Your task to perform on an android device: open app "Walmart Shopping & Grocery" (install if not already installed), go to login, and select forgot password Image 0: 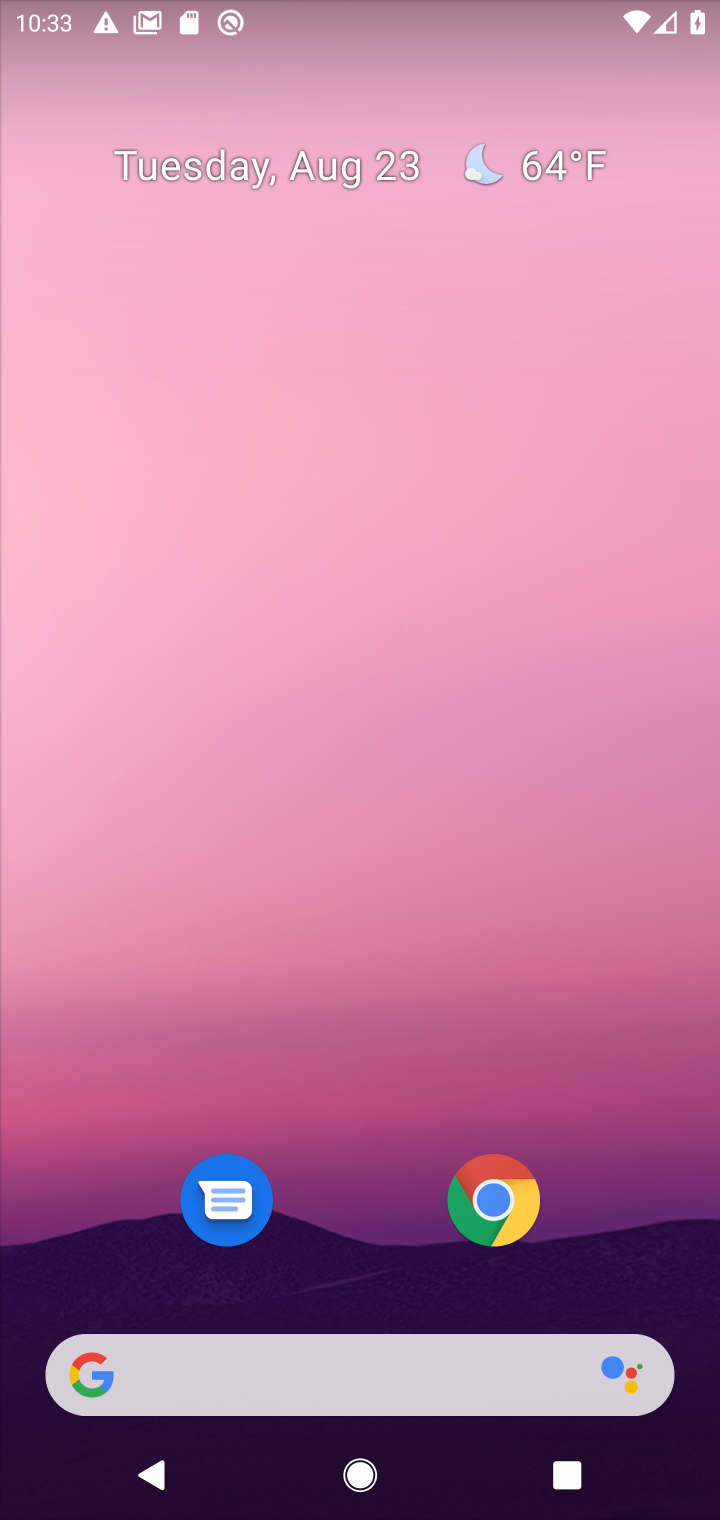
Step 0: drag from (380, 1291) to (154, 103)
Your task to perform on an android device: open app "Walmart Shopping & Grocery" (install if not already installed), go to login, and select forgot password Image 1: 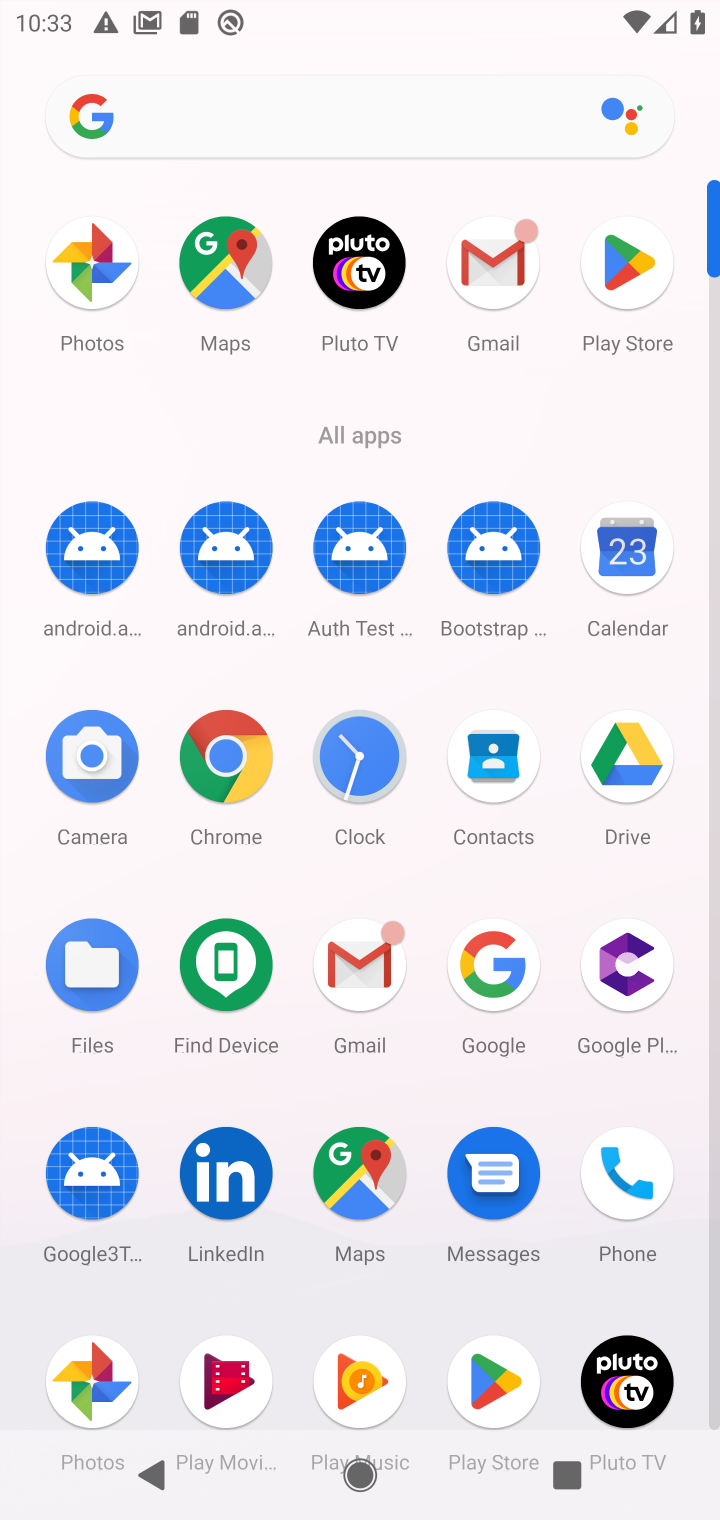
Step 1: click (482, 1404)
Your task to perform on an android device: open app "Walmart Shopping & Grocery" (install if not already installed), go to login, and select forgot password Image 2: 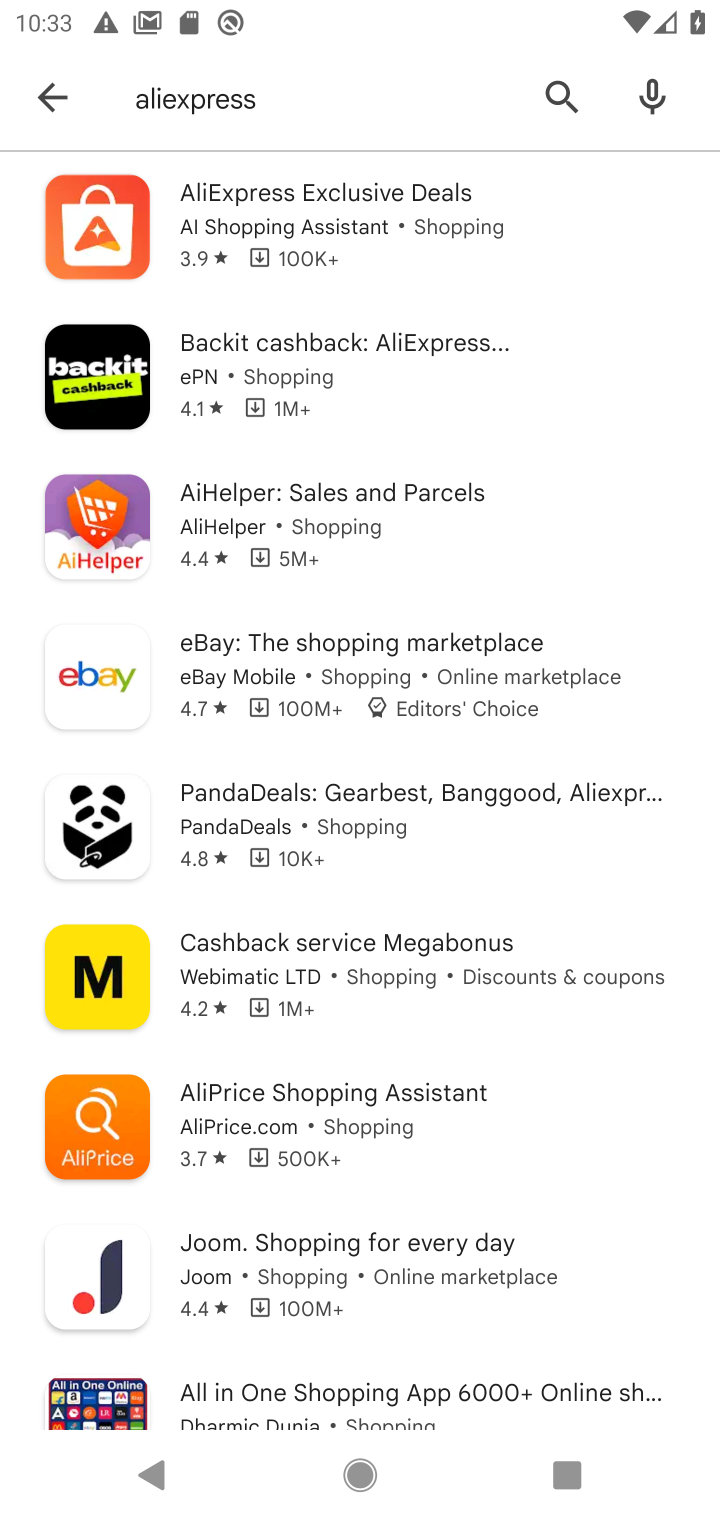
Step 2: click (63, 102)
Your task to perform on an android device: open app "Walmart Shopping & Grocery" (install if not already installed), go to login, and select forgot password Image 3: 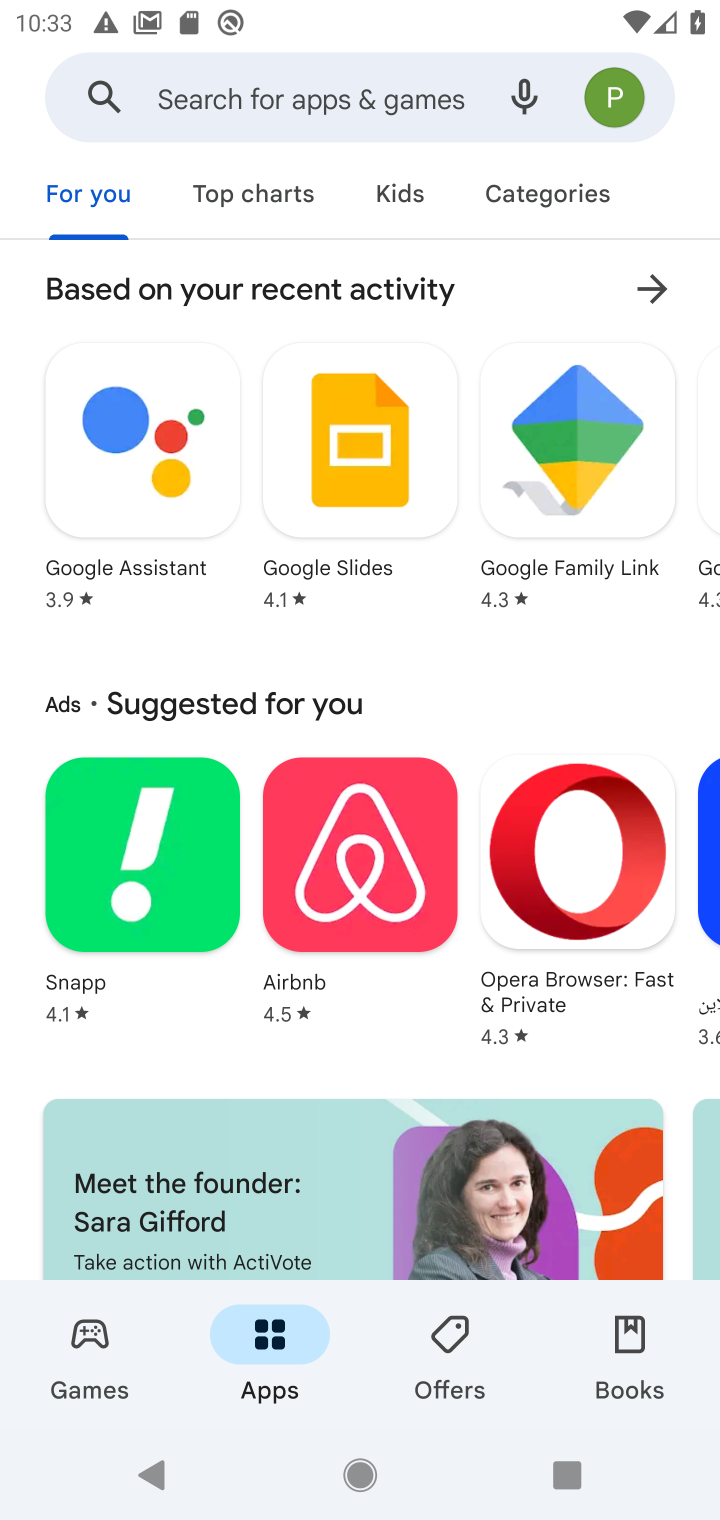
Step 3: click (179, 93)
Your task to perform on an android device: open app "Walmart Shopping & Grocery" (install if not already installed), go to login, and select forgot password Image 4: 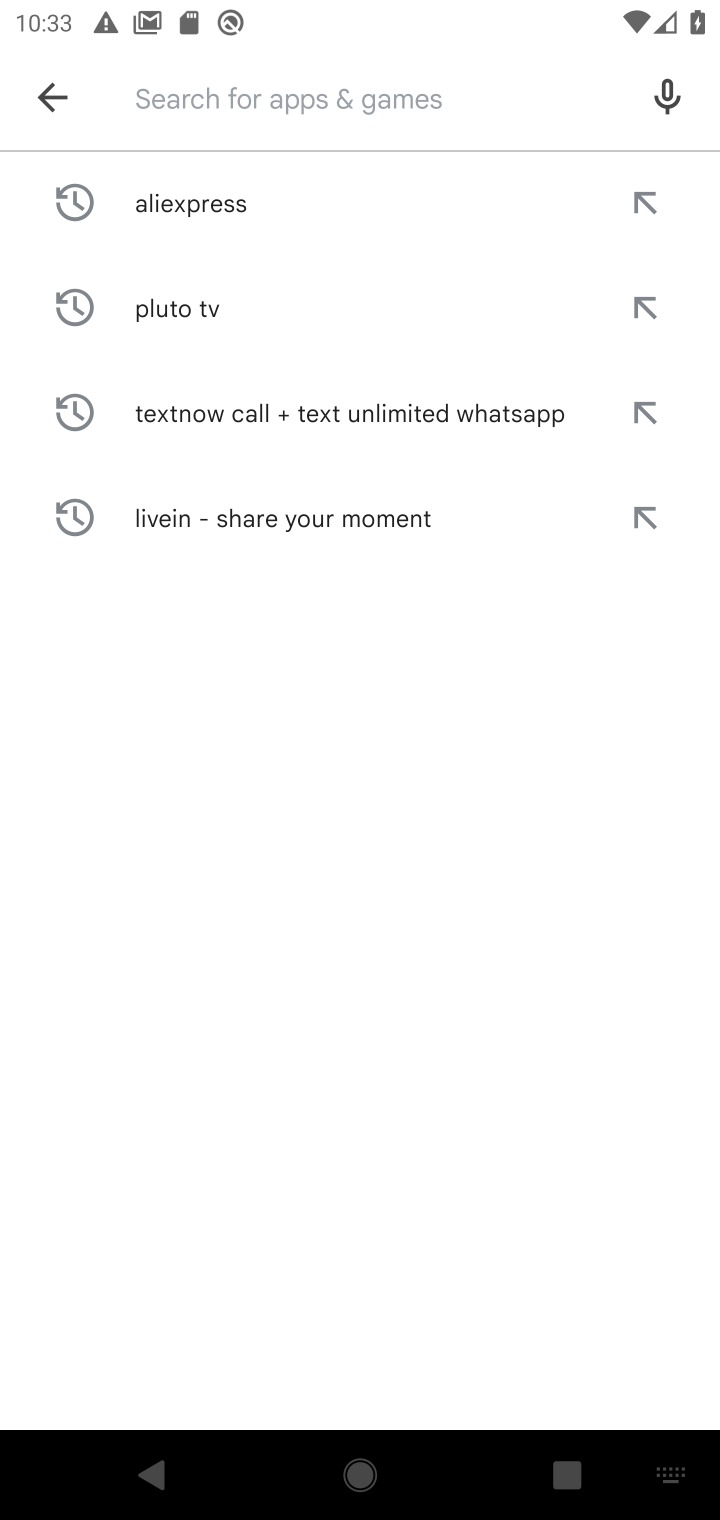
Step 4: click (262, 1483)
Your task to perform on an android device: open app "Walmart Shopping & Grocery" (install if not already installed), go to login, and select forgot password Image 5: 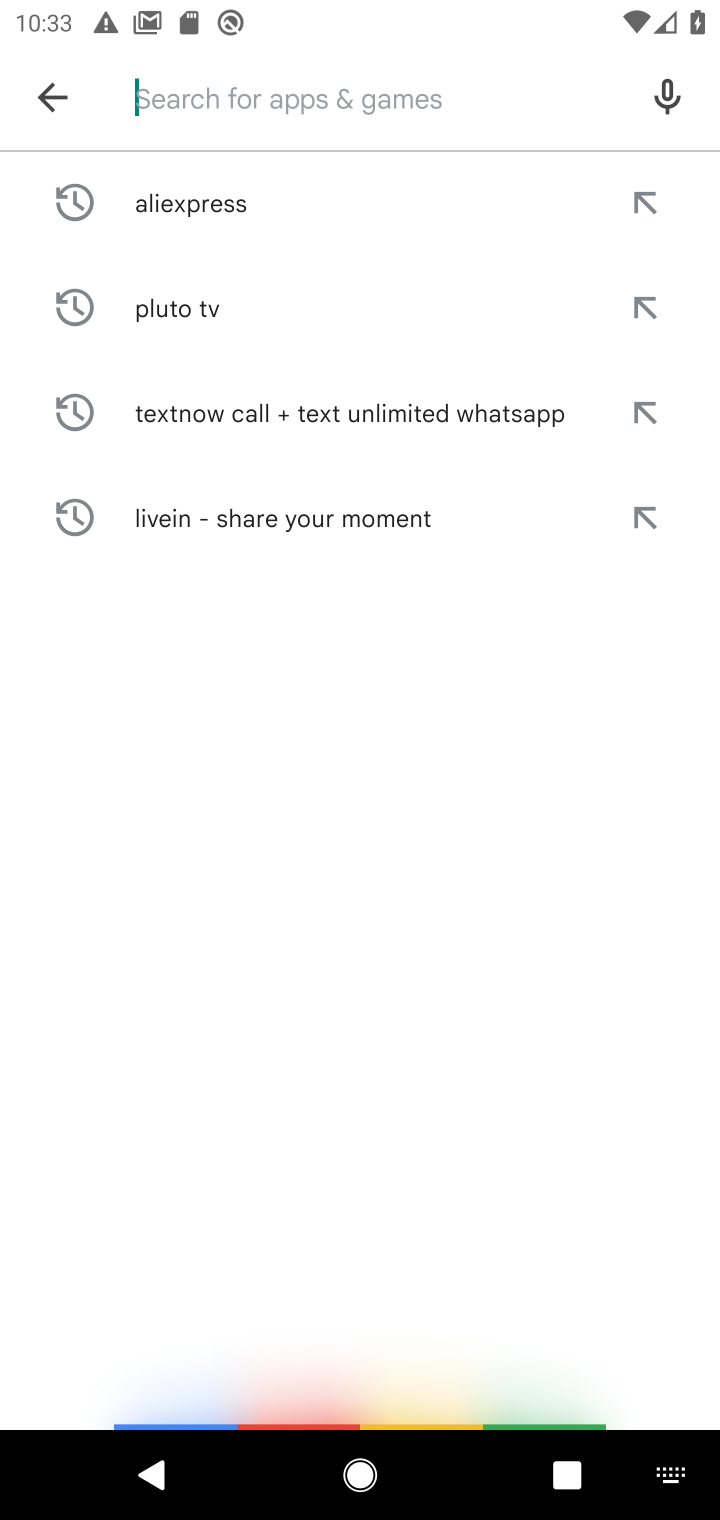
Step 5: type "Walmart Shopping & Grocery"
Your task to perform on an android device: open app "Walmart Shopping & Grocery" (install if not already installed), go to login, and select forgot password Image 6: 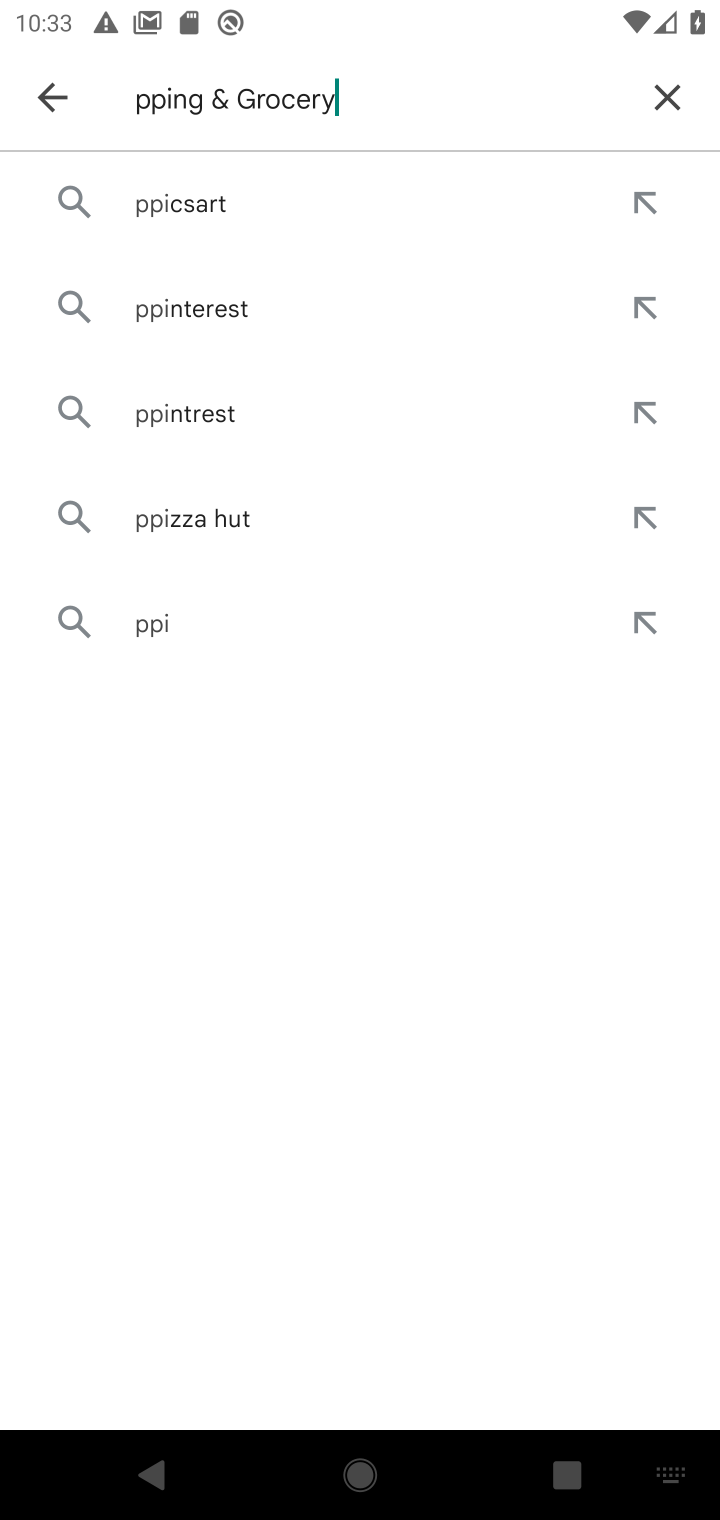
Step 6: drag from (262, 1483) to (667, 658)
Your task to perform on an android device: open app "Walmart Shopping & Grocery" (install if not already installed), go to login, and select forgot password Image 7: 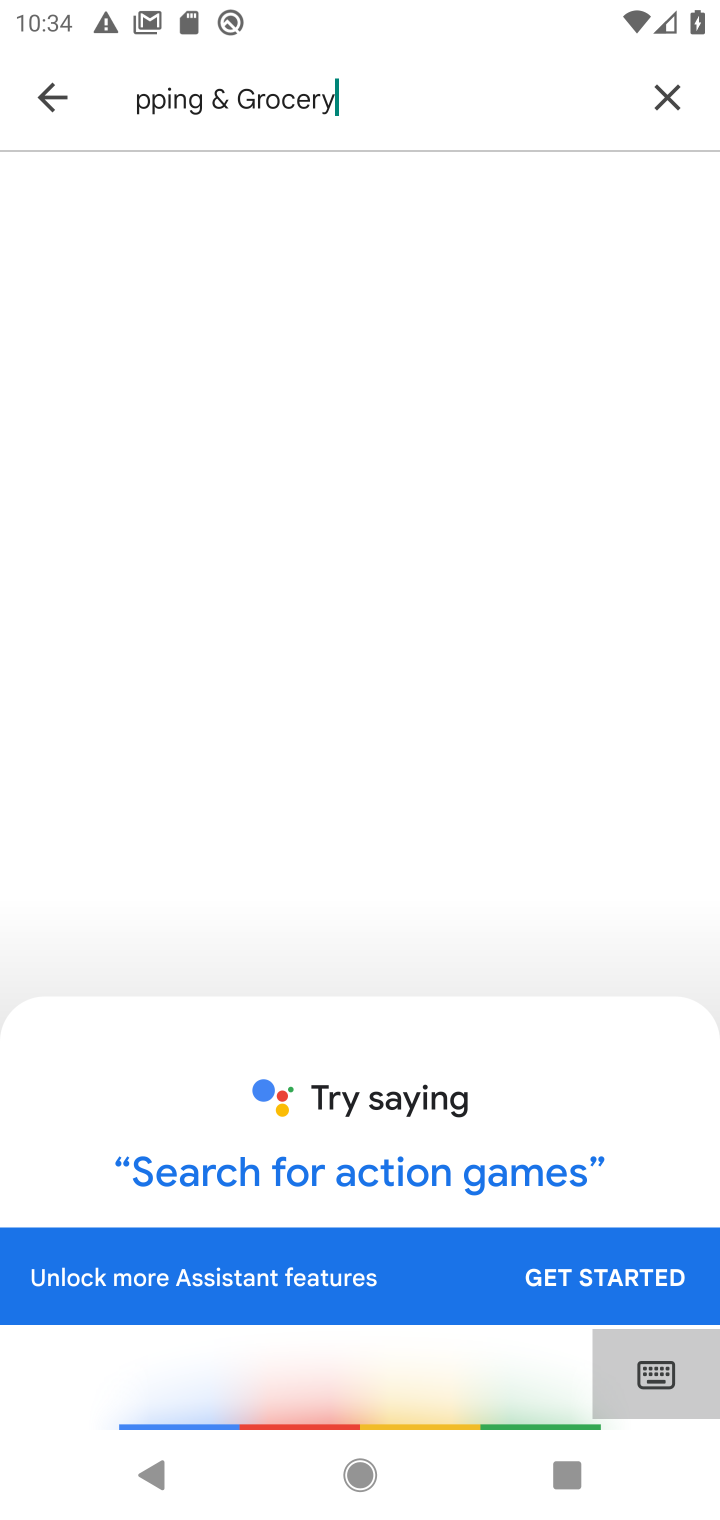
Step 7: click (632, 583)
Your task to perform on an android device: open app "Walmart Shopping & Grocery" (install if not already installed), go to login, and select forgot password Image 8: 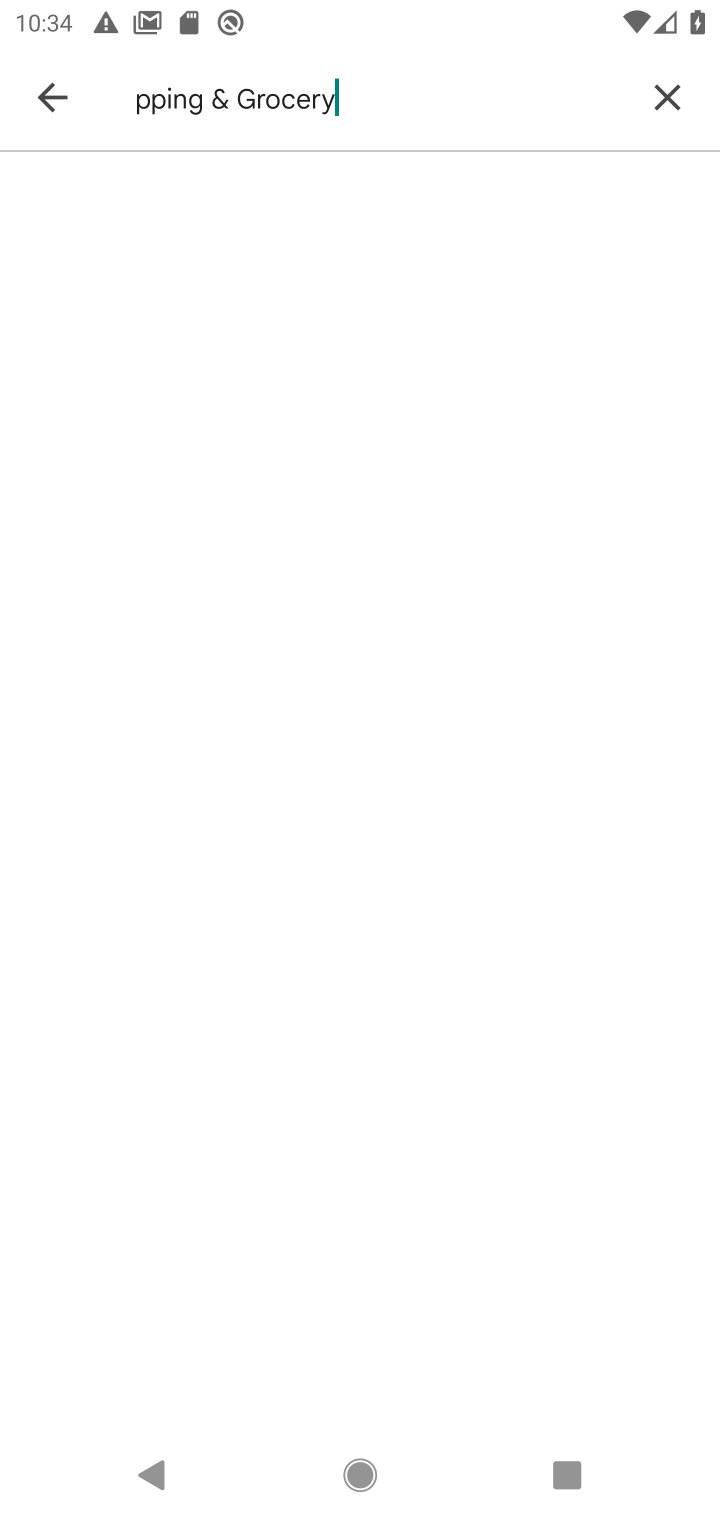
Step 8: click (671, 82)
Your task to perform on an android device: open app "Walmart Shopping & Grocery" (install if not already installed), go to login, and select forgot password Image 9: 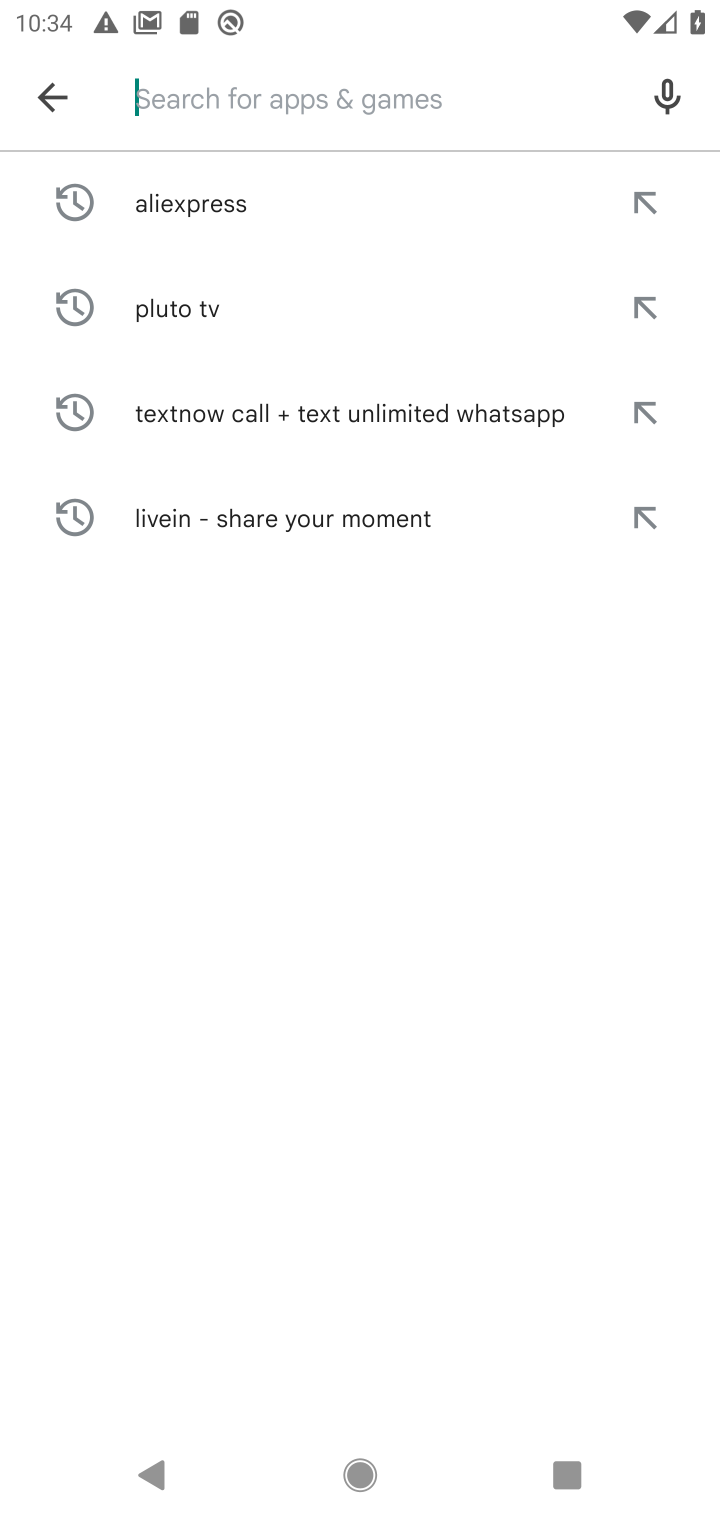
Step 9: drag from (140, 1501) to (499, 1411)
Your task to perform on an android device: open app "Walmart Shopping & Grocery" (install if not already installed), go to login, and select forgot password Image 10: 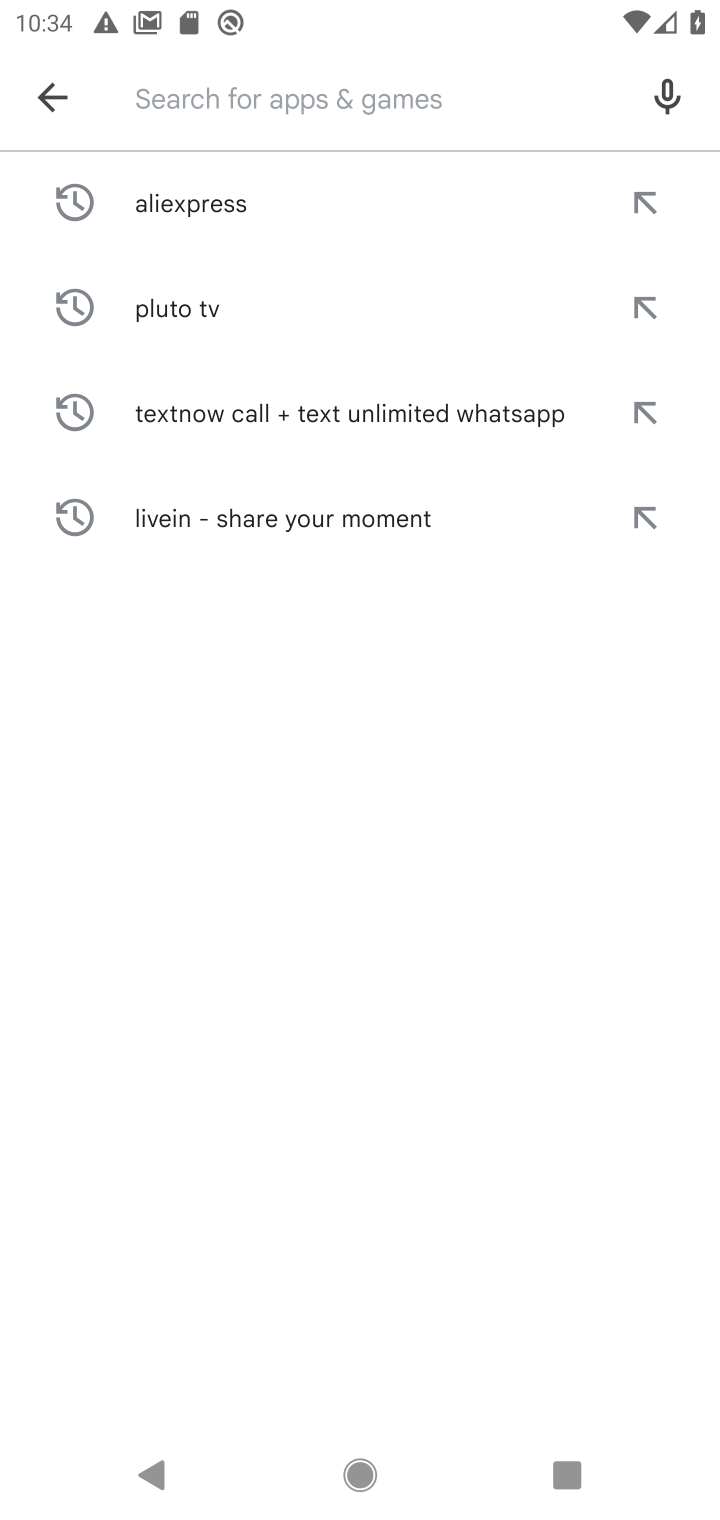
Step 10: type "Walmart Shopping & Grocery"
Your task to perform on an android device: open app "Walmart Shopping & Grocery" (install if not already installed), go to login, and select forgot password Image 11: 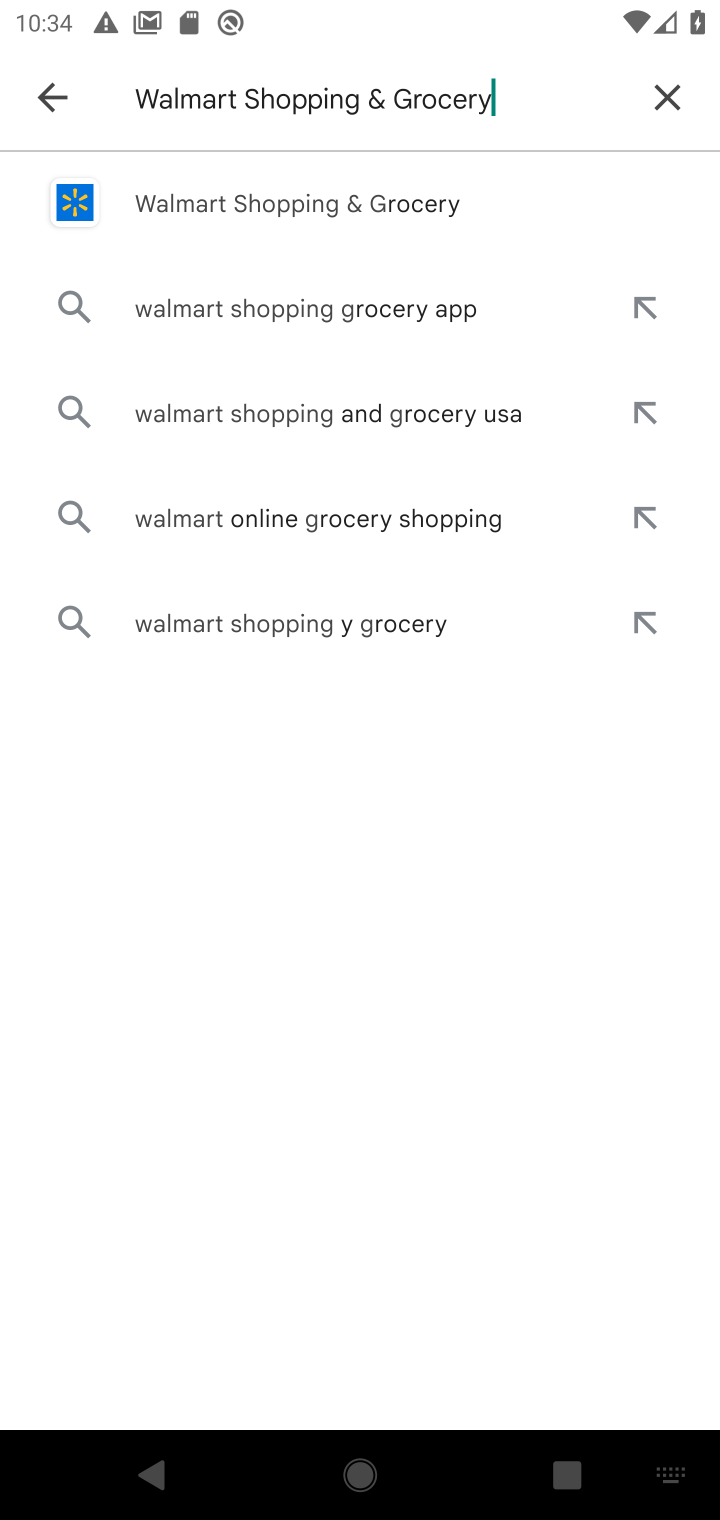
Step 11: drag from (499, 1411) to (717, 295)
Your task to perform on an android device: open app "Walmart Shopping & Grocery" (install if not already installed), go to login, and select forgot password Image 12: 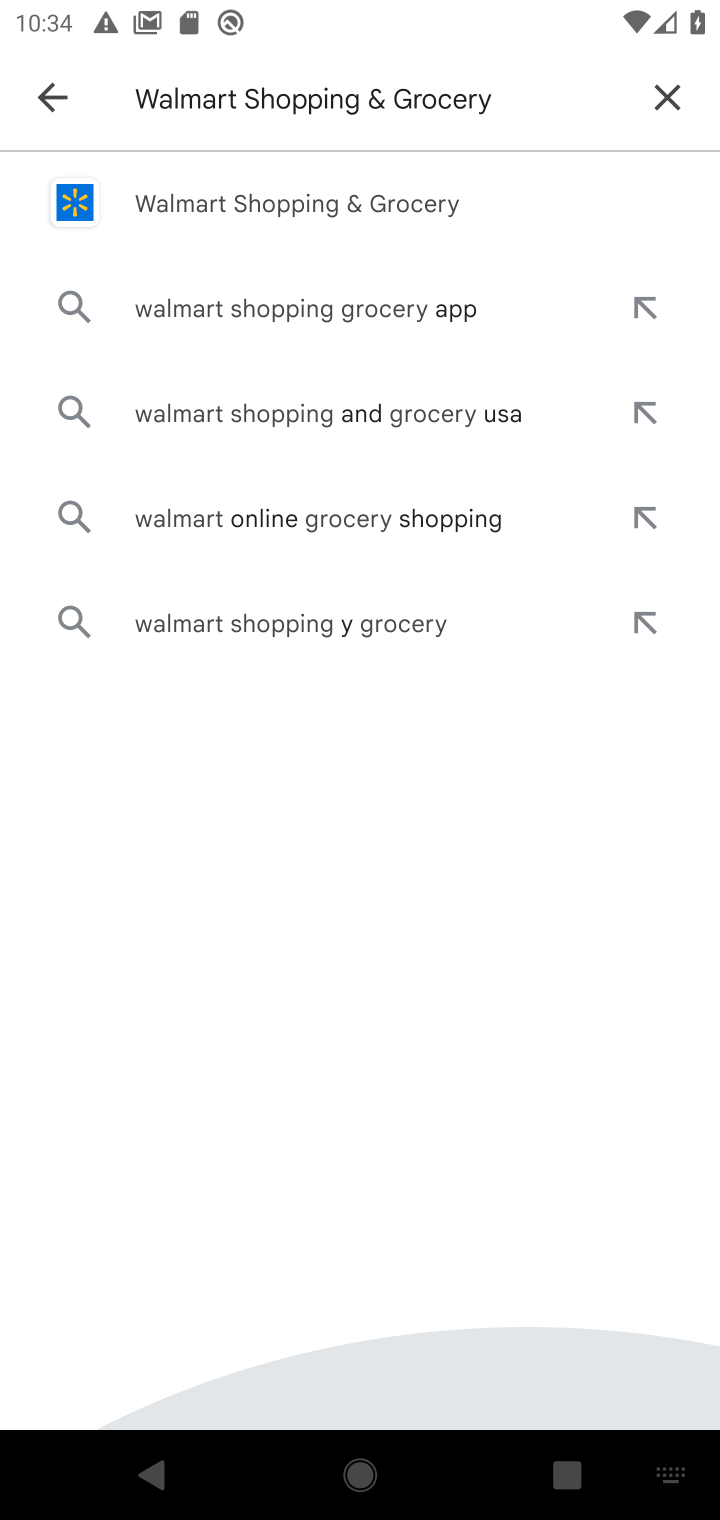
Step 12: click (481, 179)
Your task to perform on an android device: open app "Walmart Shopping & Grocery" (install if not already installed), go to login, and select forgot password Image 13: 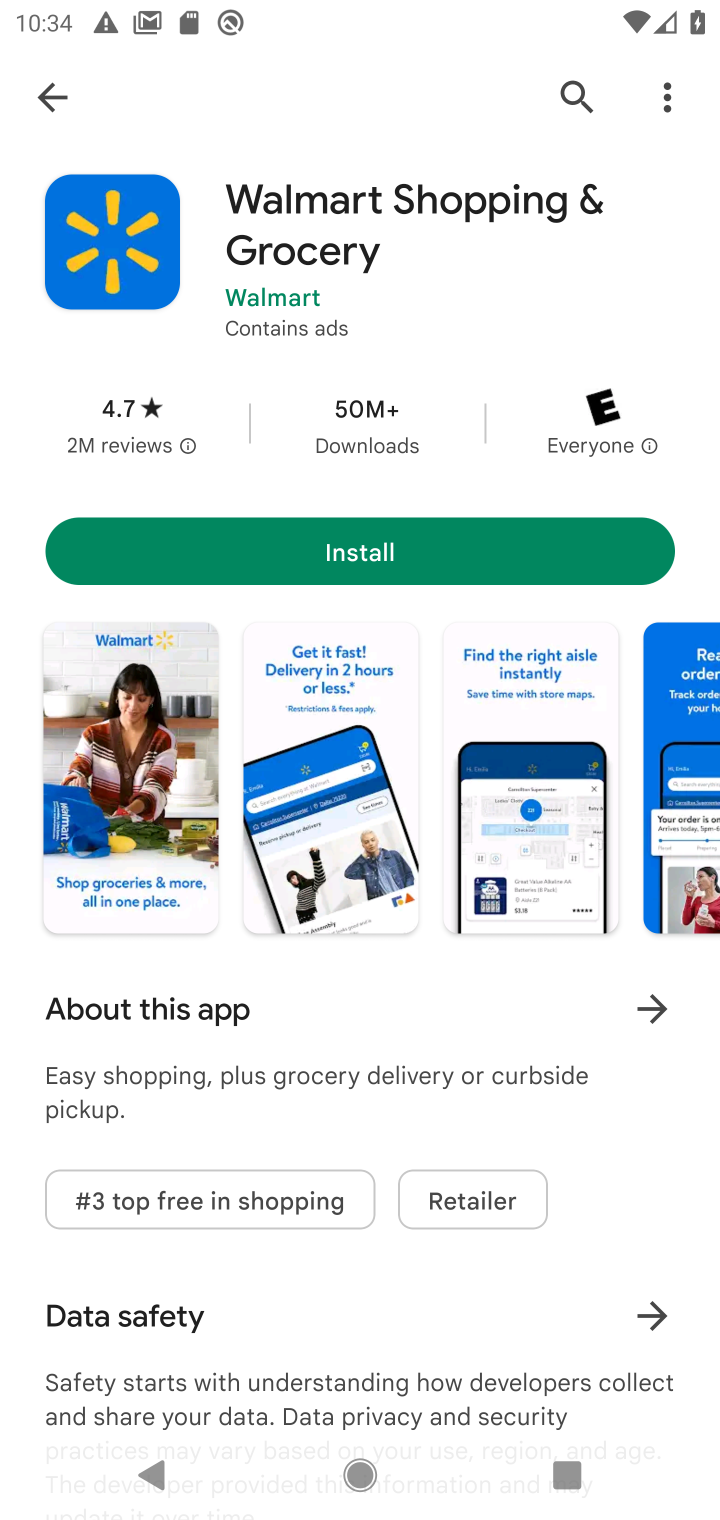
Step 13: click (422, 537)
Your task to perform on an android device: open app "Walmart Shopping & Grocery" (install if not already installed), go to login, and select forgot password Image 14: 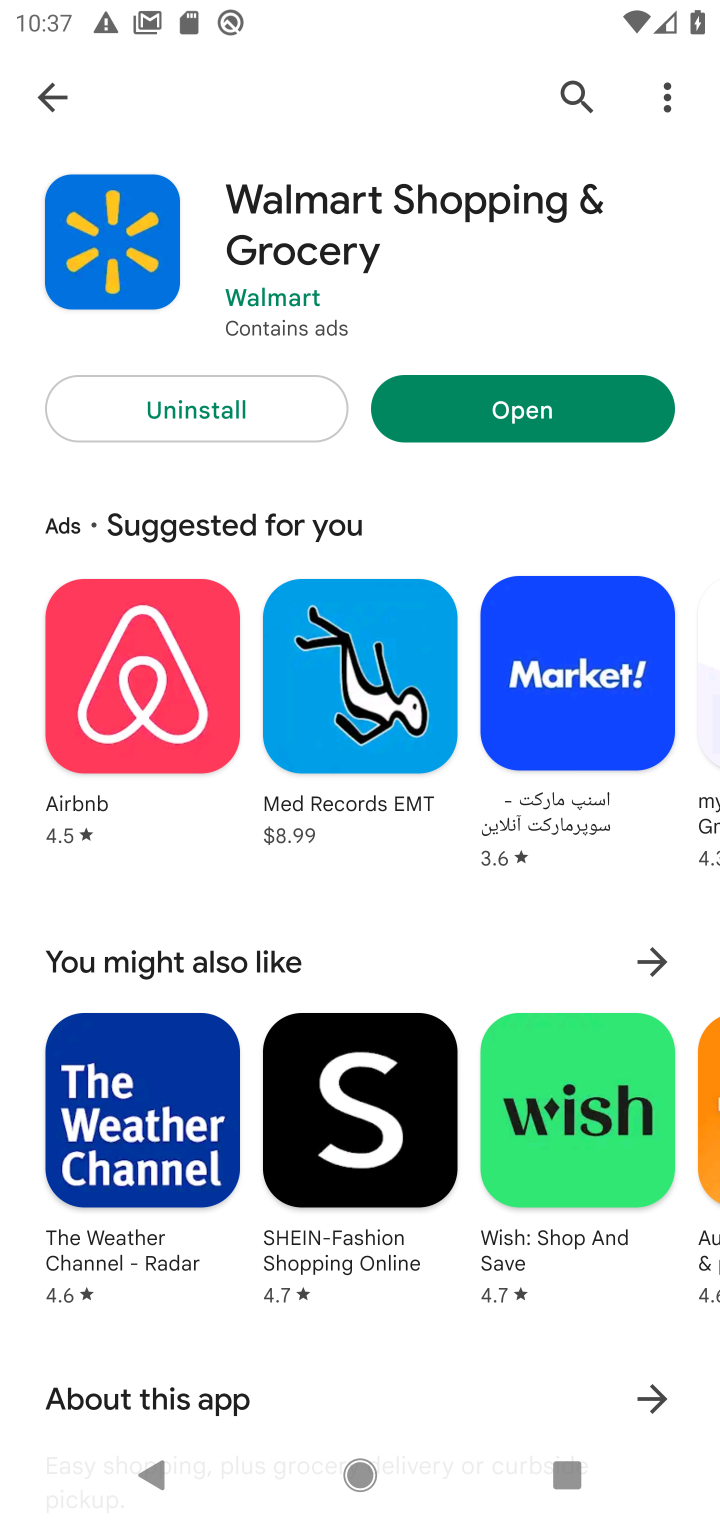
Step 14: click (484, 388)
Your task to perform on an android device: open app "Walmart Shopping & Grocery" (install if not already installed), go to login, and select forgot password Image 15: 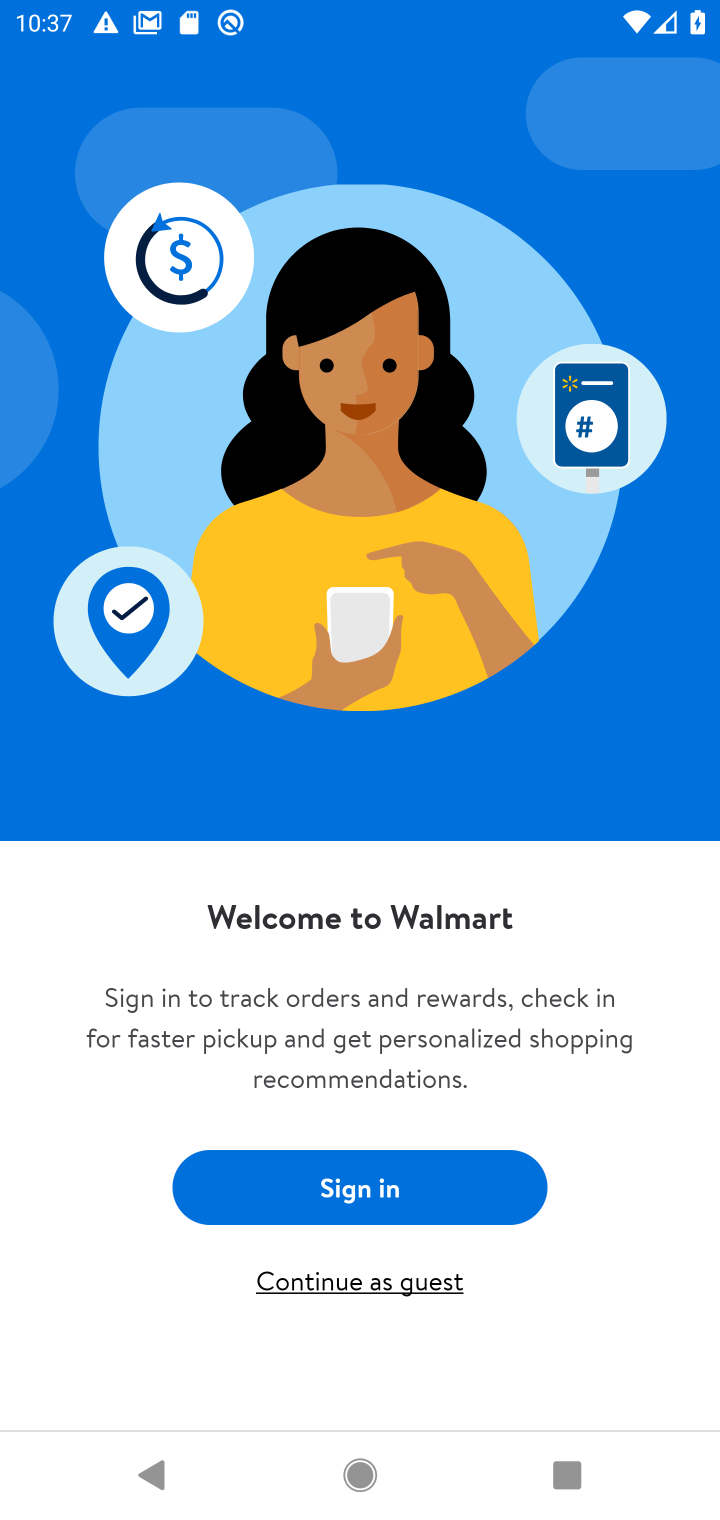
Step 15: click (392, 1160)
Your task to perform on an android device: open app "Walmart Shopping & Grocery" (install if not already installed), go to login, and select forgot password Image 16: 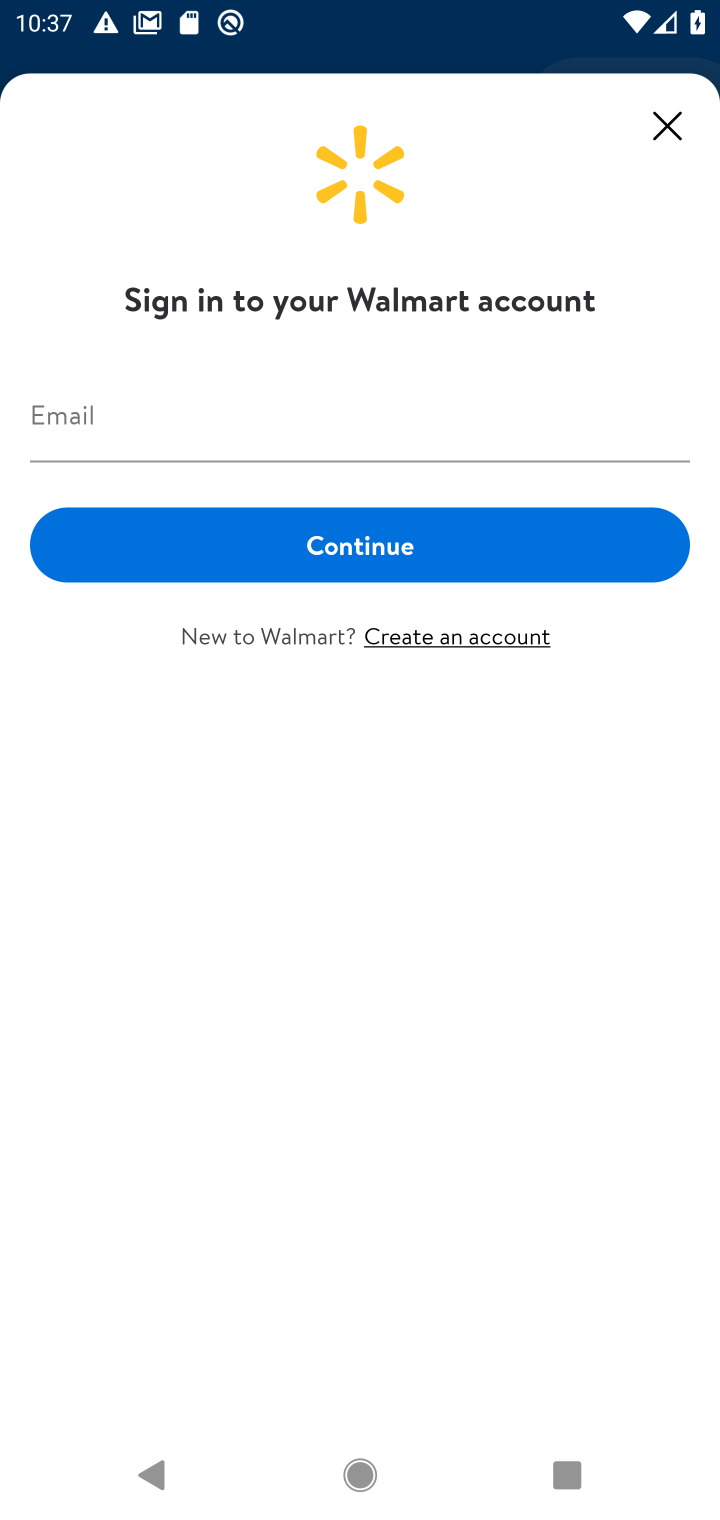
Step 16: click (287, 446)
Your task to perform on an android device: open app "Walmart Shopping & Grocery" (install if not already installed), go to login, and select forgot password Image 17: 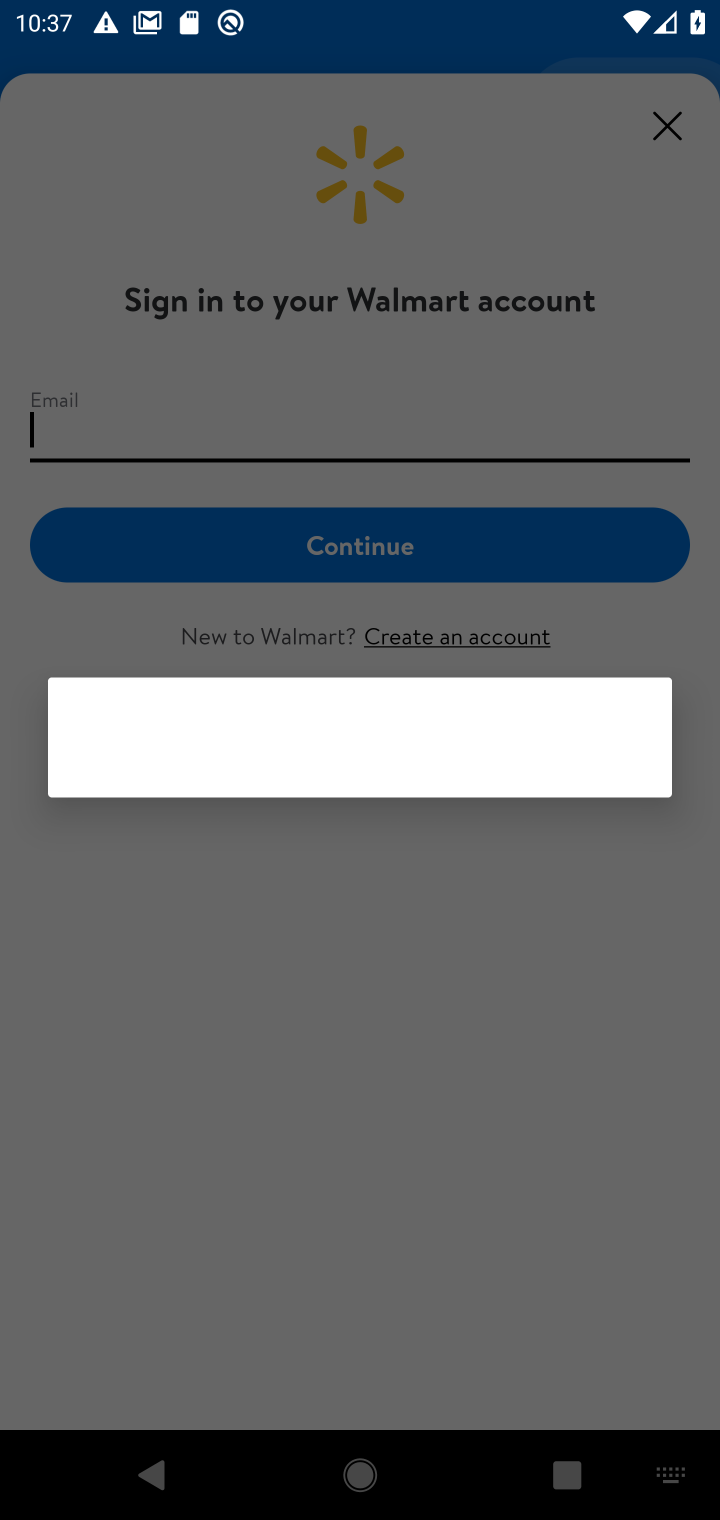
Step 17: click (461, 630)
Your task to perform on an android device: open app "Walmart Shopping & Grocery" (install if not already installed), go to login, and select forgot password Image 18: 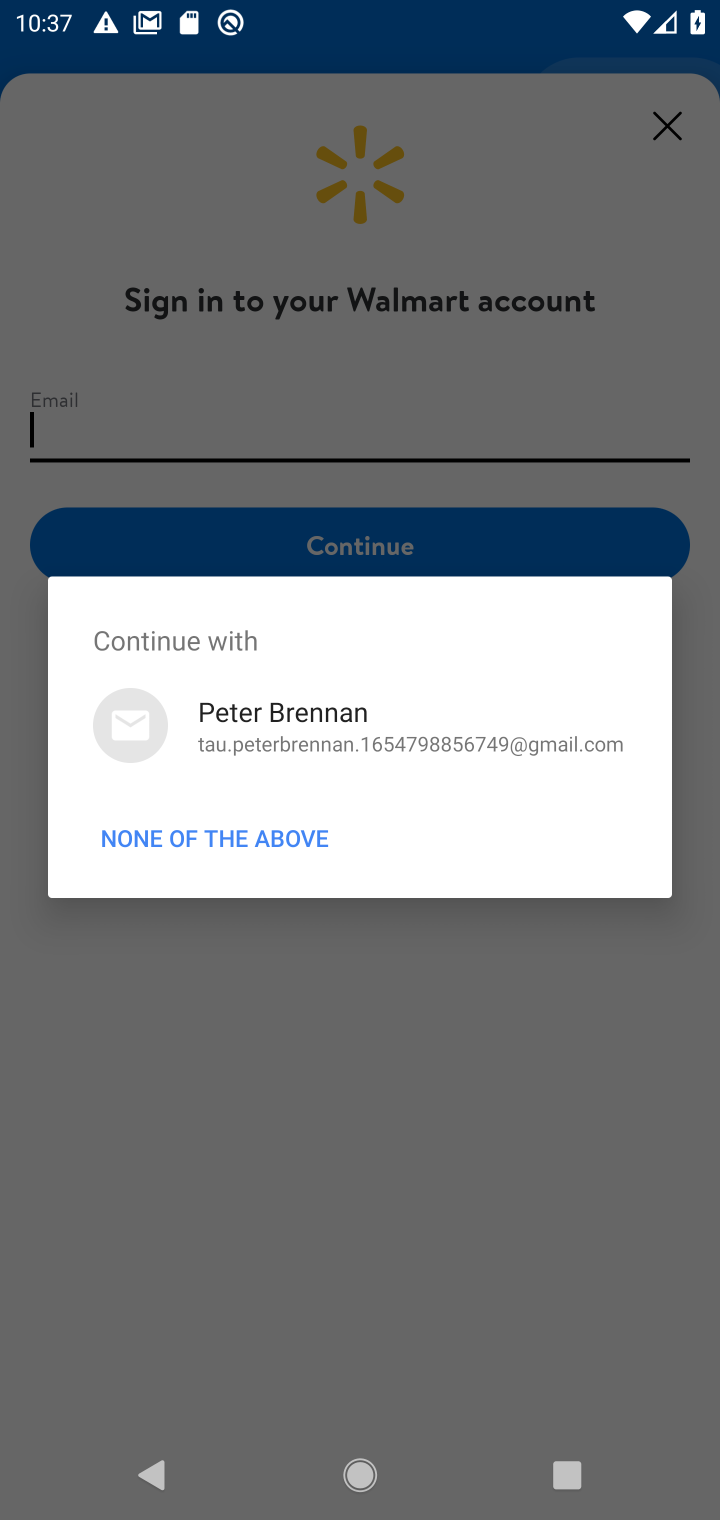
Step 18: task complete